Your task to perform on an android device: turn notification dots on Image 0: 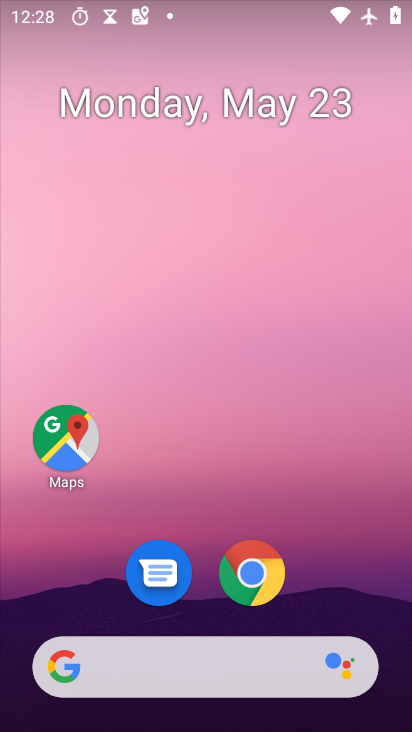
Step 0: press home button
Your task to perform on an android device: turn notification dots on Image 1: 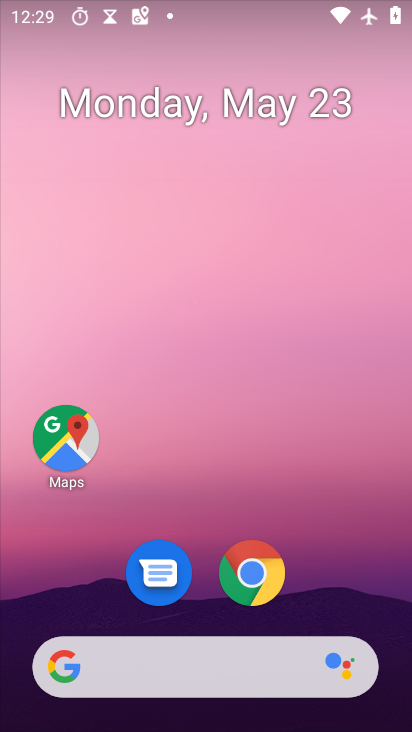
Step 1: drag from (171, 686) to (270, 147)
Your task to perform on an android device: turn notification dots on Image 2: 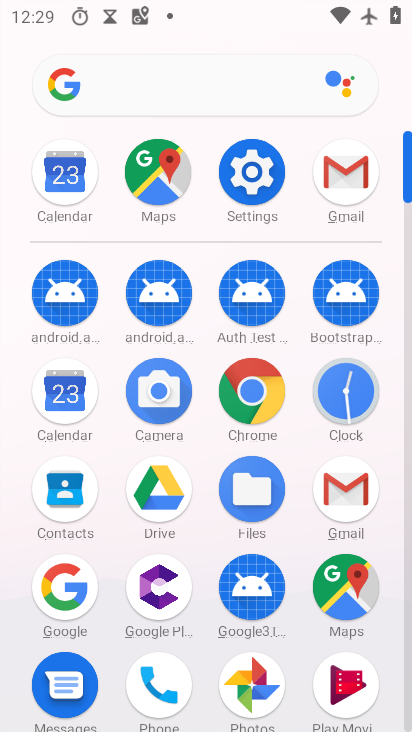
Step 2: click (259, 173)
Your task to perform on an android device: turn notification dots on Image 3: 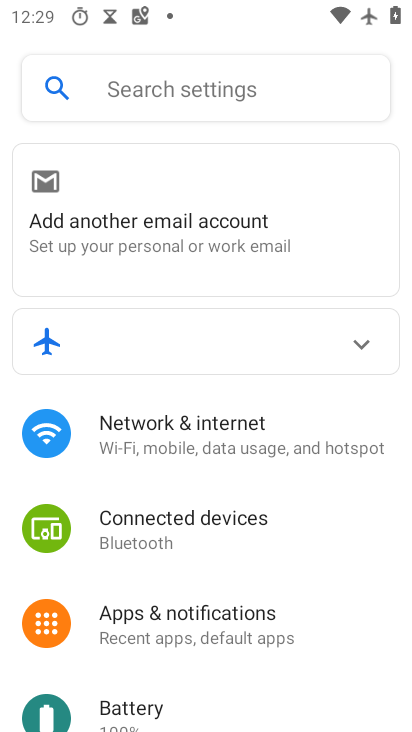
Step 3: click (249, 630)
Your task to perform on an android device: turn notification dots on Image 4: 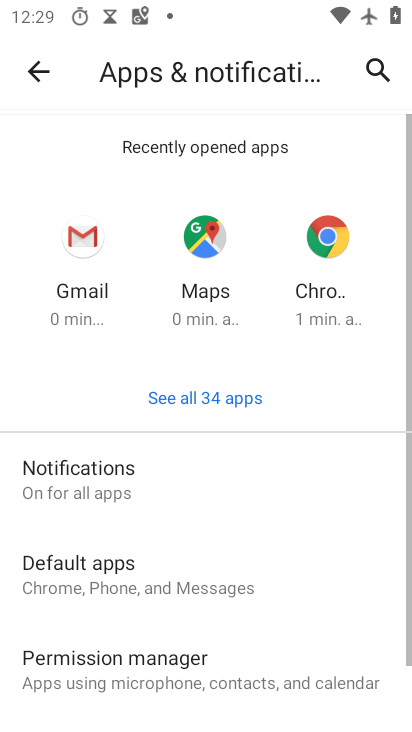
Step 4: drag from (288, 672) to (397, 206)
Your task to perform on an android device: turn notification dots on Image 5: 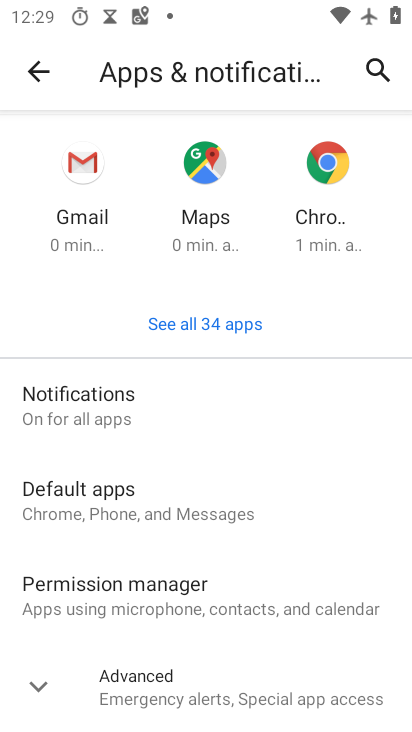
Step 5: click (209, 692)
Your task to perform on an android device: turn notification dots on Image 6: 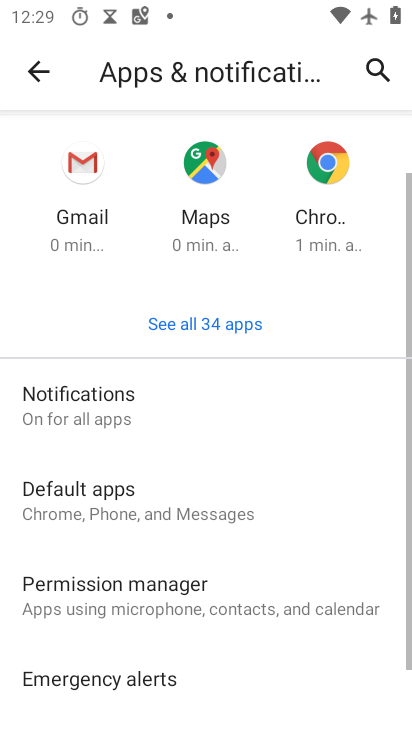
Step 6: drag from (209, 692) to (367, 167)
Your task to perform on an android device: turn notification dots on Image 7: 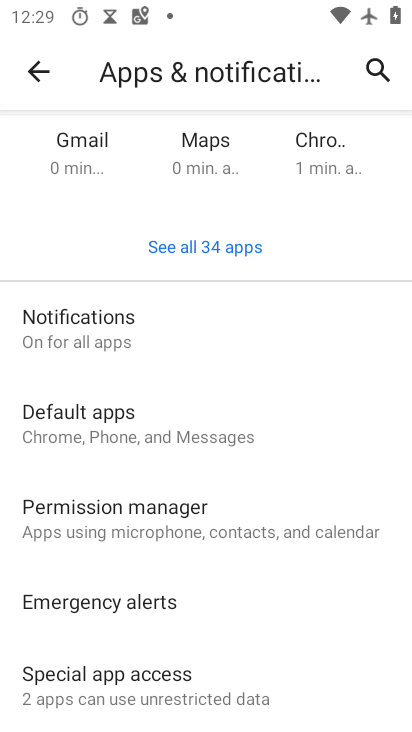
Step 7: click (96, 329)
Your task to perform on an android device: turn notification dots on Image 8: 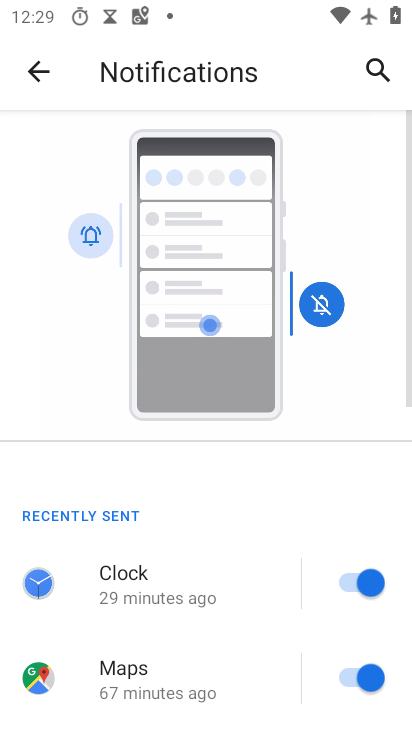
Step 8: drag from (242, 646) to (379, 148)
Your task to perform on an android device: turn notification dots on Image 9: 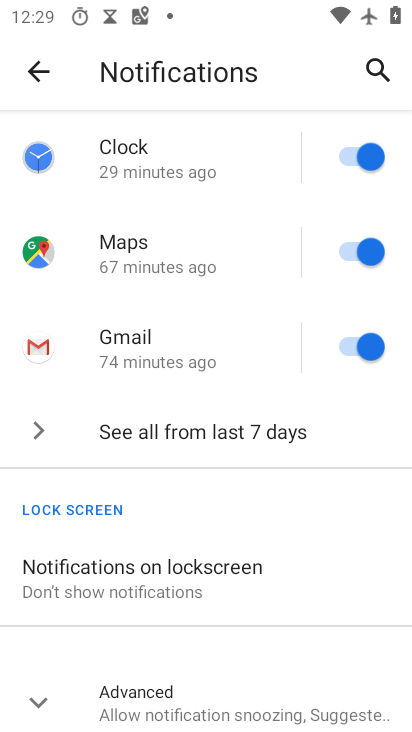
Step 9: drag from (267, 644) to (394, 117)
Your task to perform on an android device: turn notification dots on Image 10: 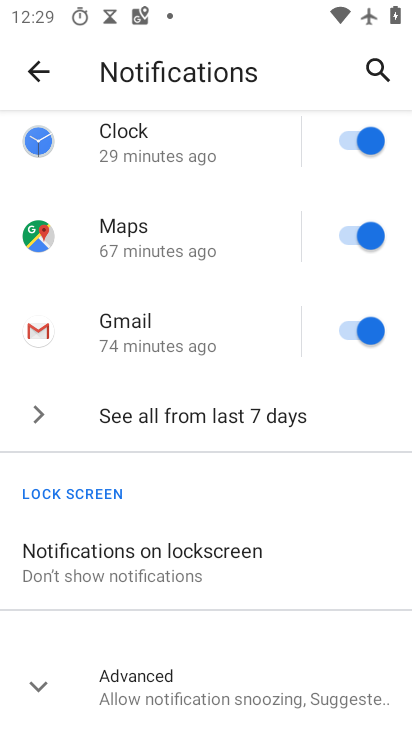
Step 10: click (188, 706)
Your task to perform on an android device: turn notification dots on Image 11: 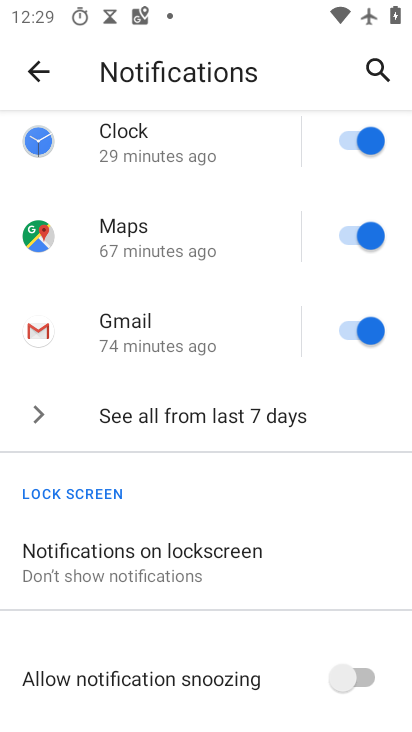
Step 11: task complete